Your task to perform on an android device: change text size in settings app Image 0: 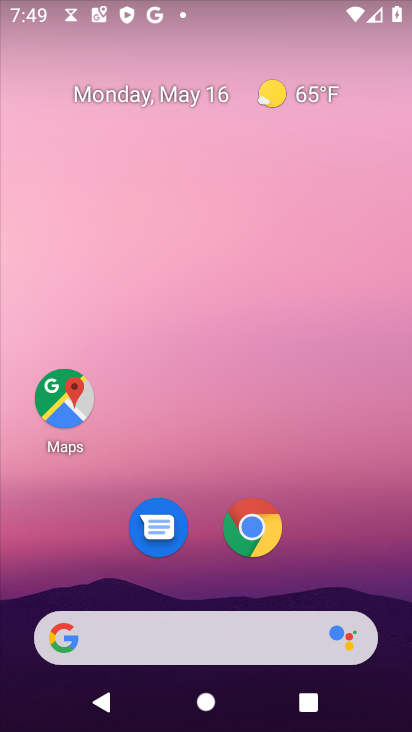
Step 0: drag from (303, 578) to (276, 275)
Your task to perform on an android device: change text size in settings app Image 1: 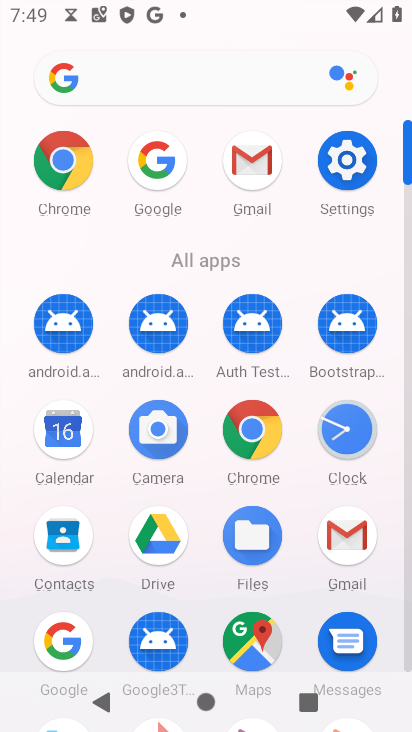
Step 1: click (340, 157)
Your task to perform on an android device: change text size in settings app Image 2: 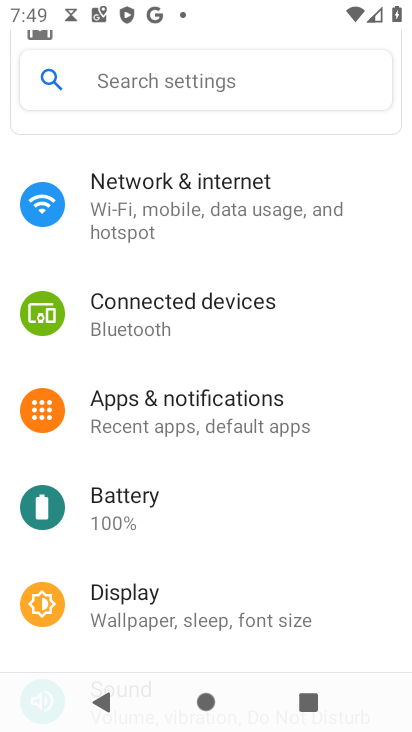
Step 2: drag from (256, 610) to (312, 201)
Your task to perform on an android device: change text size in settings app Image 3: 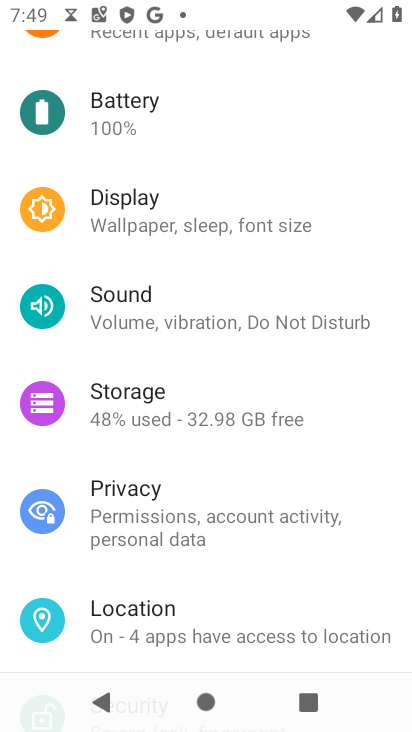
Step 3: drag from (191, 550) to (253, 211)
Your task to perform on an android device: change text size in settings app Image 4: 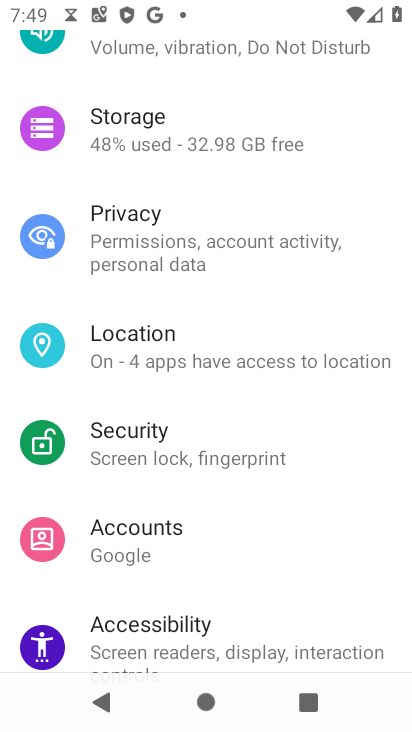
Step 4: drag from (195, 599) to (241, 433)
Your task to perform on an android device: change text size in settings app Image 5: 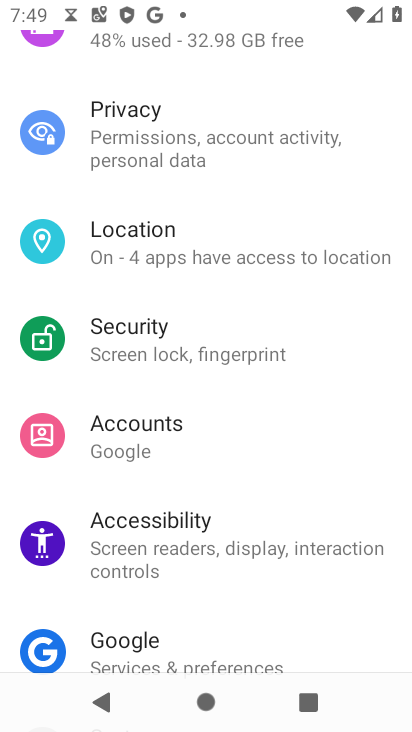
Step 5: drag from (177, 518) to (240, 353)
Your task to perform on an android device: change text size in settings app Image 6: 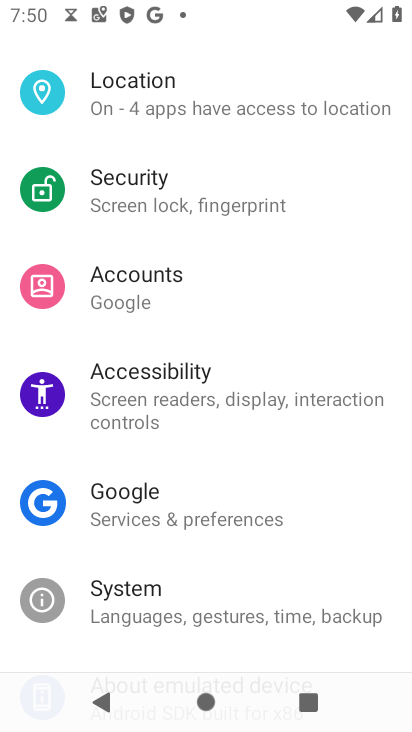
Step 6: click (185, 396)
Your task to perform on an android device: change text size in settings app Image 7: 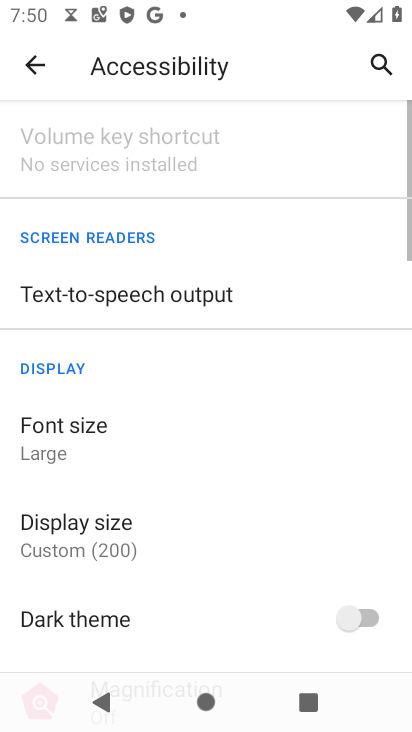
Step 7: click (56, 424)
Your task to perform on an android device: change text size in settings app Image 8: 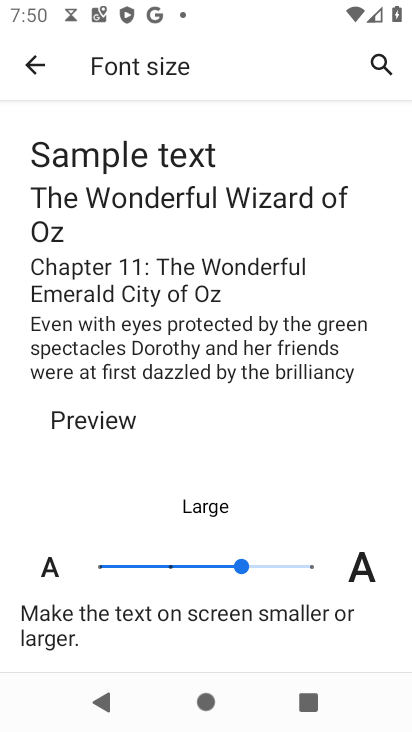
Step 8: click (180, 562)
Your task to perform on an android device: change text size in settings app Image 9: 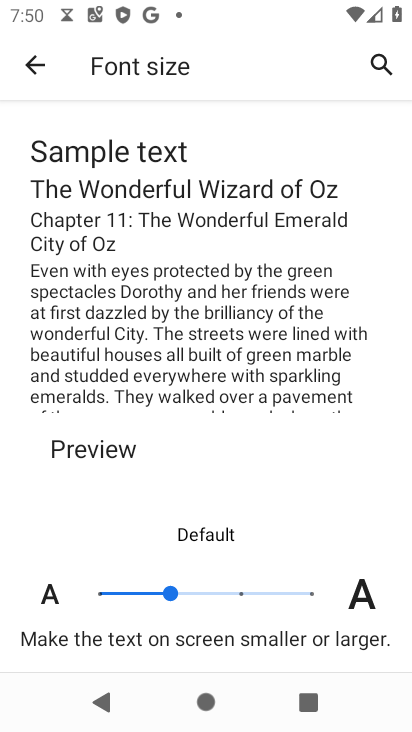
Step 9: task complete